Your task to perform on an android device: toggle notification dots Image 0: 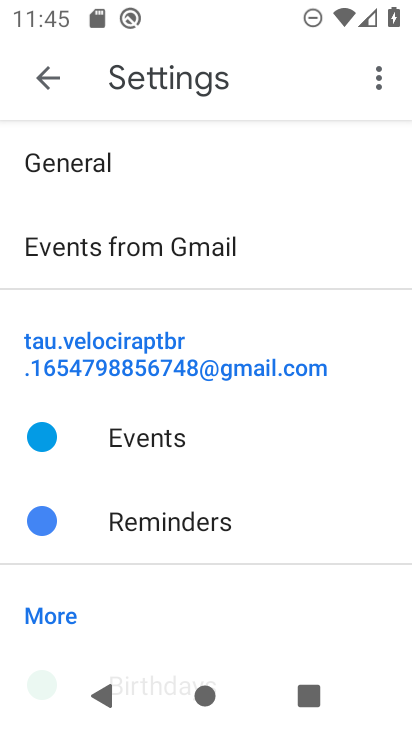
Step 0: press home button
Your task to perform on an android device: toggle notification dots Image 1: 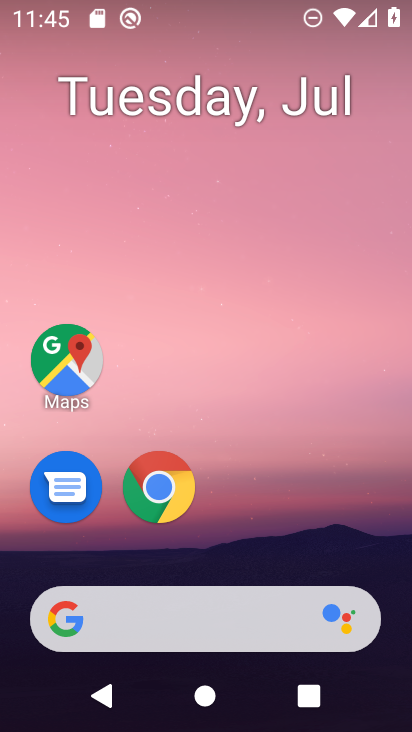
Step 1: drag from (380, 544) to (331, 121)
Your task to perform on an android device: toggle notification dots Image 2: 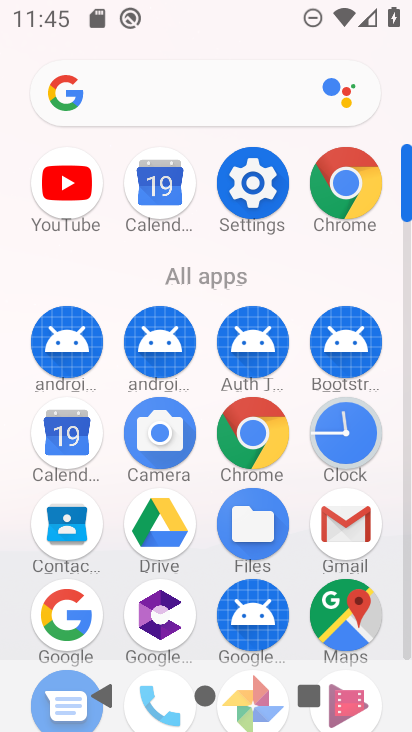
Step 2: click (254, 192)
Your task to perform on an android device: toggle notification dots Image 3: 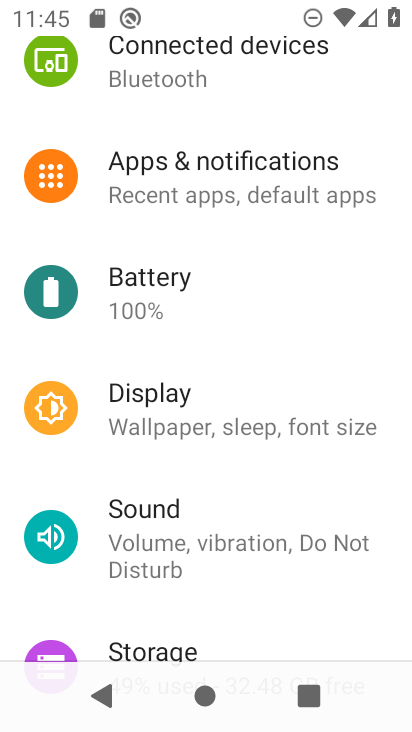
Step 3: click (257, 190)
Your task to perform on an android device: toggle notification dots Image 4: 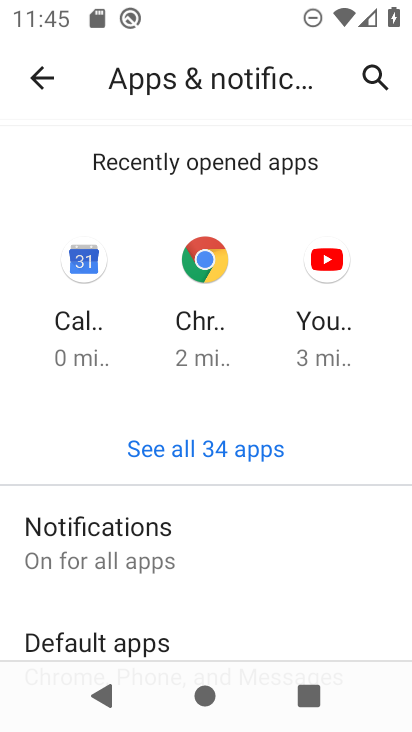
Step 4: drag from (309, 514) to (268, 253)
Your task to perform on an android device: toggle notification dots Image 5: 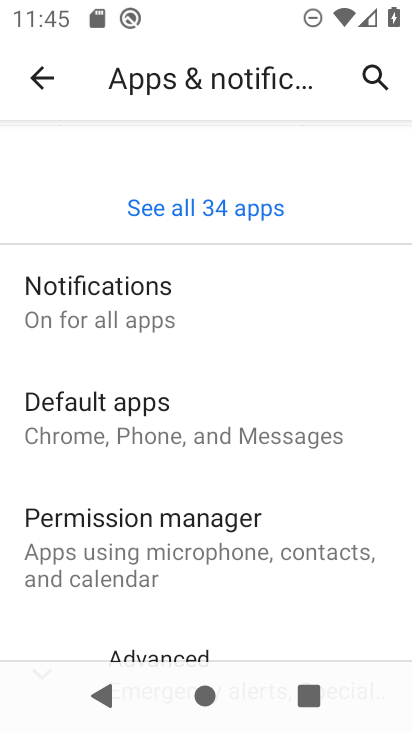
Step 5: click (240, 328)
Your task to perform on an android device: toggle notification dots Image 6: 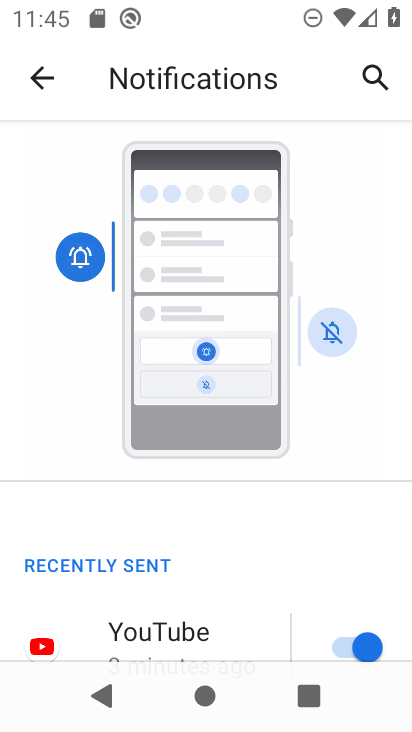
Step 6: drag from (261, 538) to (227, 92)
Your task to perform on an android device: toggle notification dots Image 7: 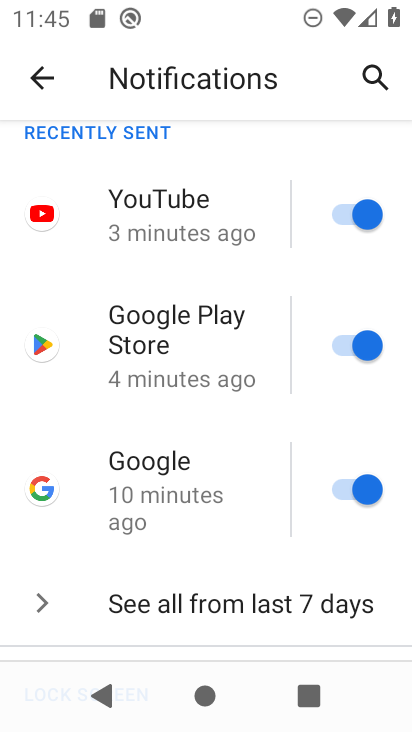
Step 7: drag from (272, 568) to (250, 224)
Your task to perform on an android device: toggle notification dots Image 8: 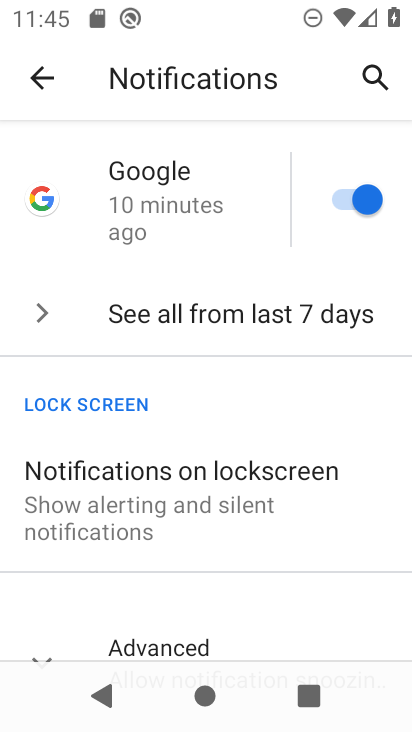
Step 8: drag from (273, 537) to (239, 226)
Your task to perform on an android device: toggle notification dots Image 9: 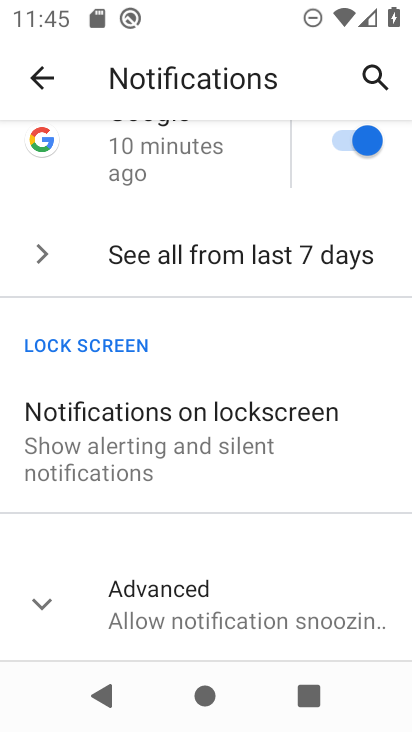
Step 9: click (268, 582)
Your task to perform on an android device: toggle notification dots Image 10: 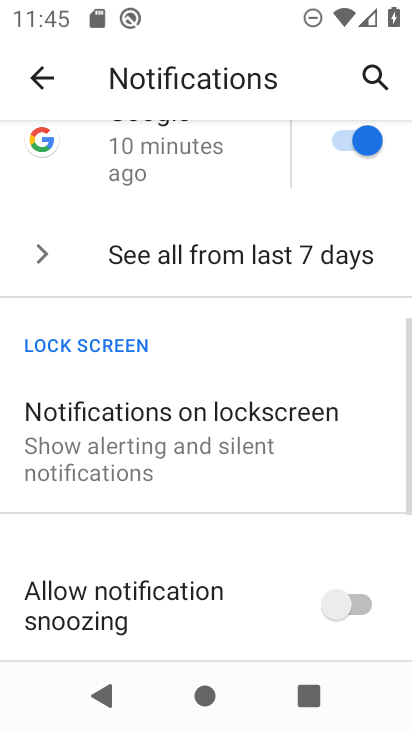
Step 10: drag from (265, 534) to (231, 221)
Your task to perform on an android device: toggle notification dots Image 11: 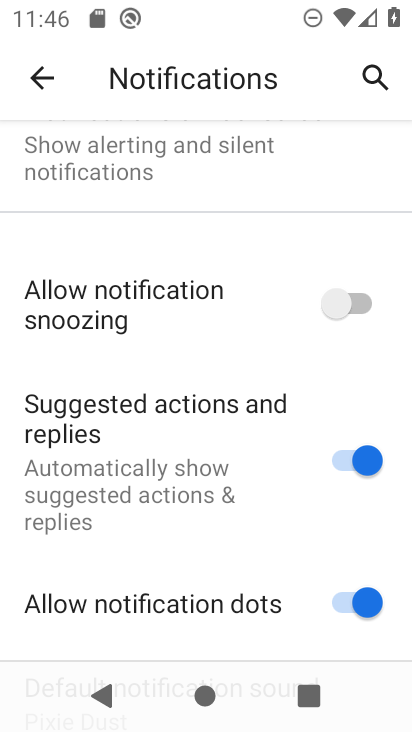
Step 11: click (363, 604)
Your task to perform on an android device: toggle notification dots Image 12: 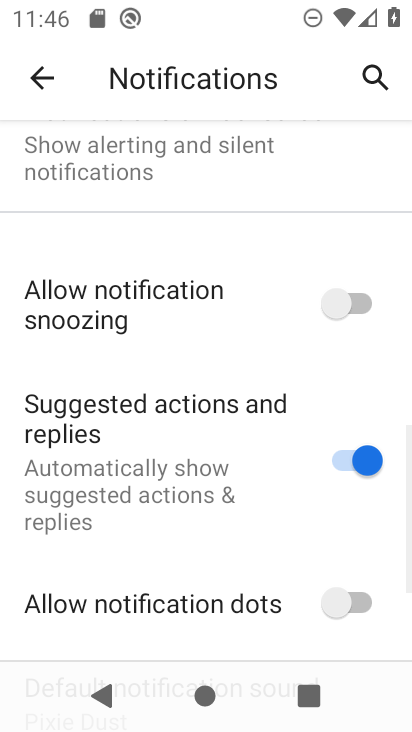
Step 12: task complete